Your task to perform on an android device: Open the web browser Image 0: 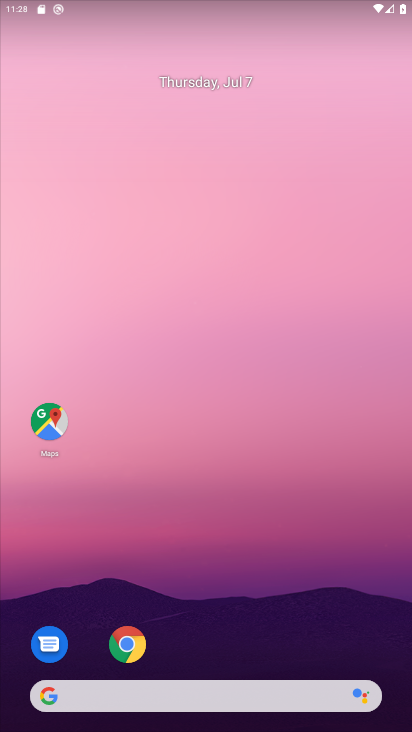
Step 0: drag from (81, 624) to (303, 118)
Your task to perform on an android device: Open the web browser Image 1: 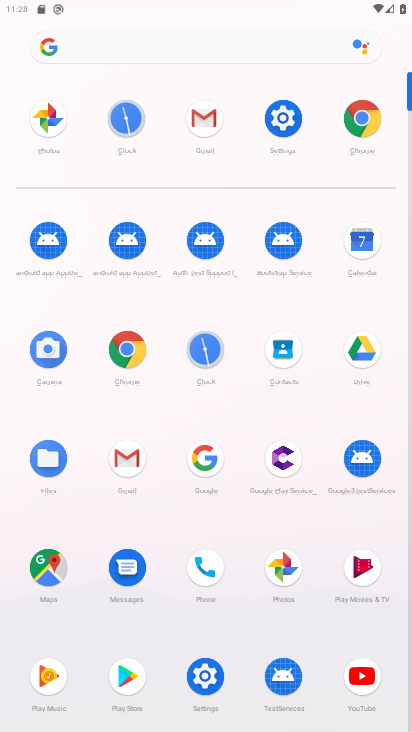
Step 1: click (73, 45)
Your task to perform on an android device: Open the web browser Image 2: 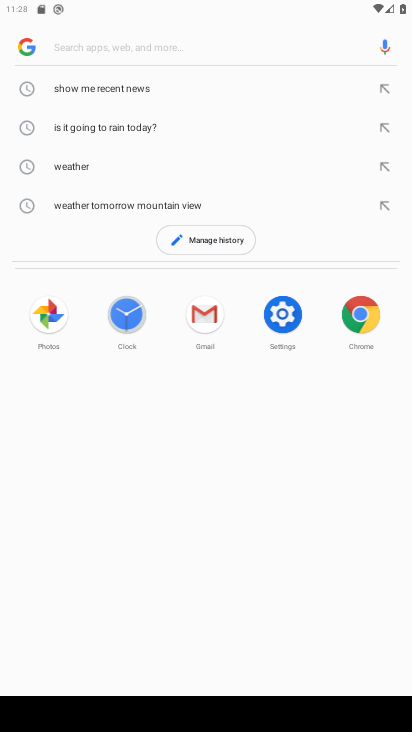
Step 2: task complete